Your task to perform on an android device: Open the phone app and click the voicemail tab. Image 0: 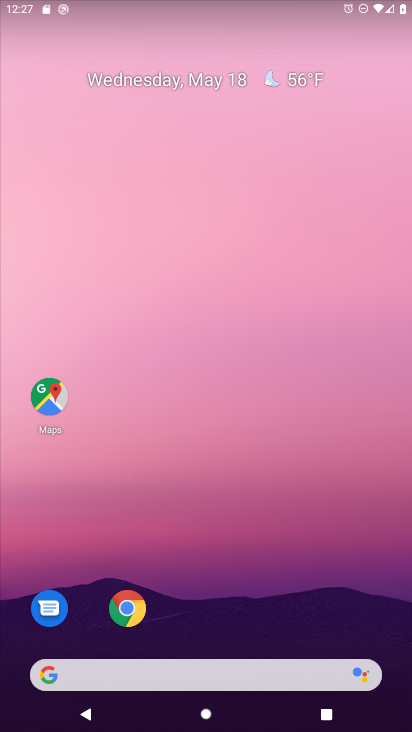
Step 0: drag from (274, 680) to (337, 145)
Your task to perform on an android device: Open the phone app and click the voicemail tab. Image 1: 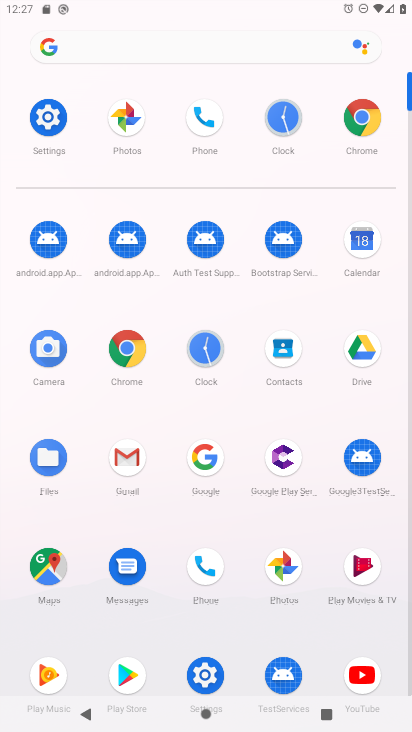
Step 1: click (206, 569)
Your task to perform on an android device: Open the phone app and click the voicemail tab. Image 2: 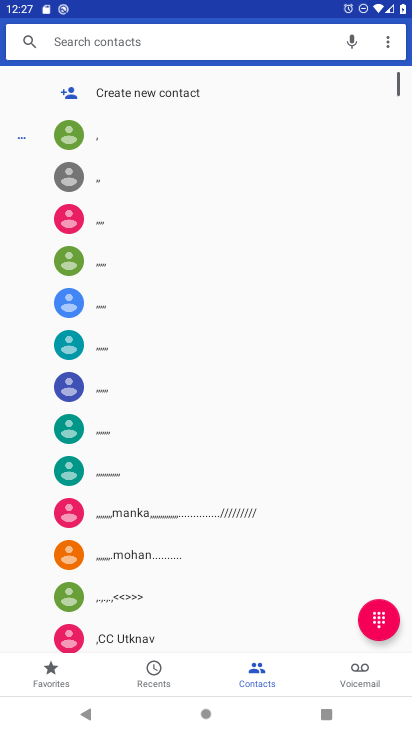
Step 2: click (374, 671)
Your task to perform on an android device: Open the phone app and click the voicemail tab. Image 3: 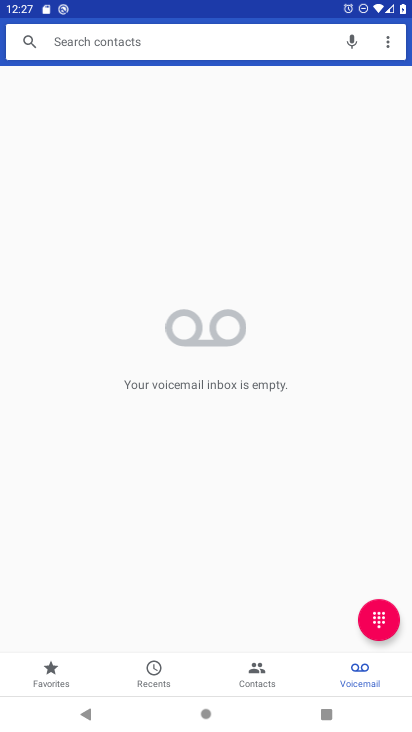
Step 3: click (349, 672)
Your task to perform on an android device: Open the phone app and click the voicemail tab. Image 4: 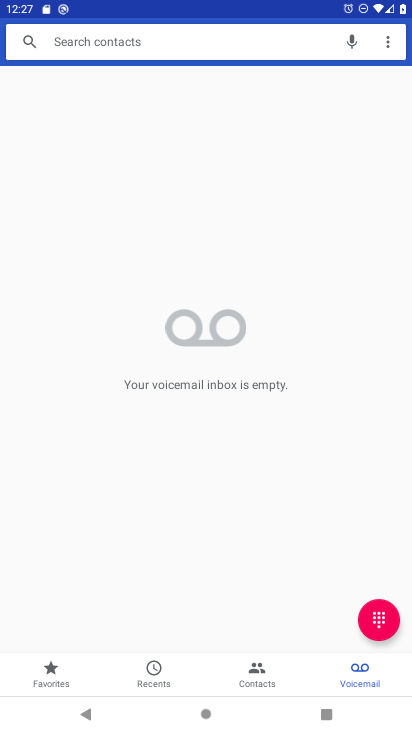
Step 4: task complete